Your task to perform on an android device: stop showing notifications on the lock screen Image 0: 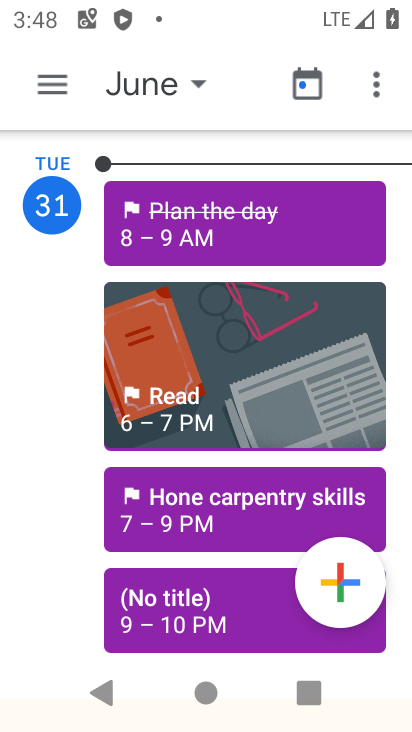
Step 0: press home button
Your task to perform on an android device: stop showing notifications on the lock screen Image 1: 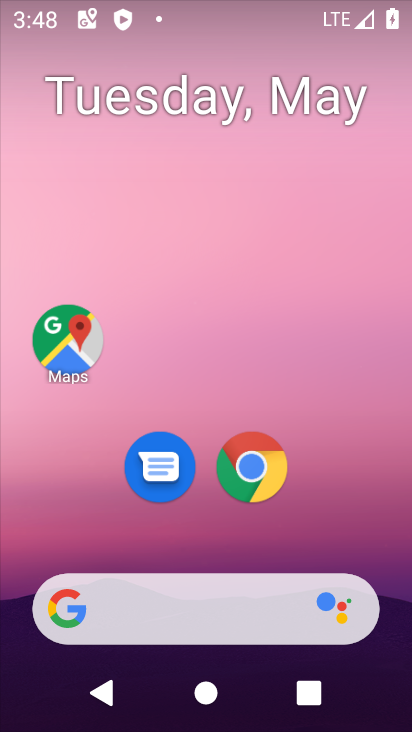
Step 1: drag from (352, 521) to (359, 118)
Your task to perform on an android device: stop showing notifications on the lock screen Image 2: 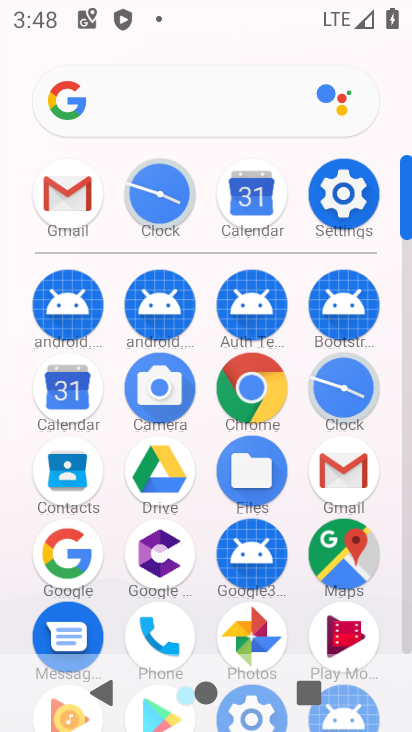
Step 2: click (331, 203)
Your task to perform on an android device: stop showing notifications on the lock screen Image 3: 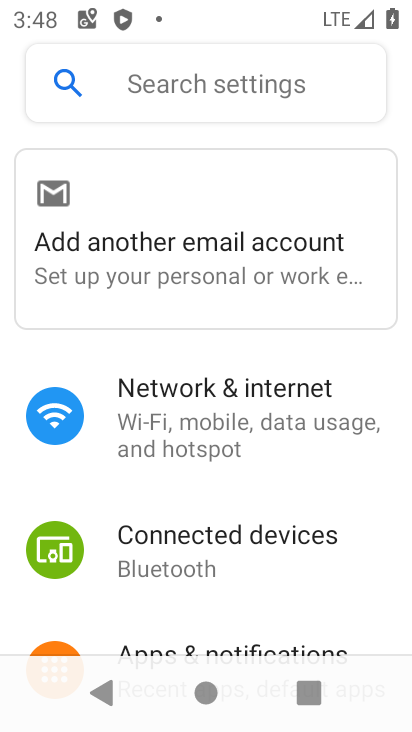
Step 3: click (248, 647)
Your task to perform on an android device: stop showing notifications on the lock screen Image 4: 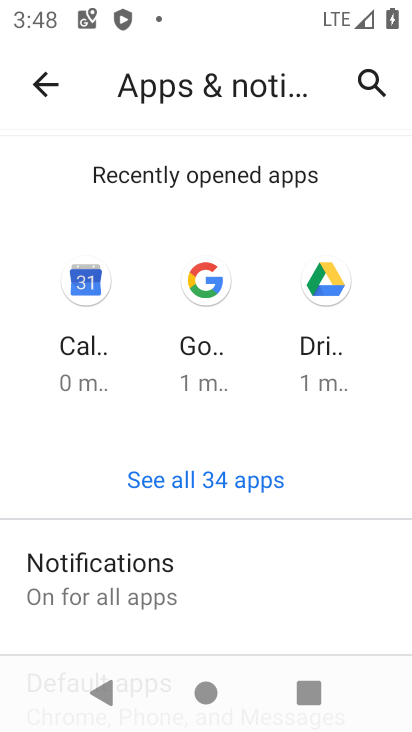
Step 4: drag from (344, 497) to (343, 202)
Your task to perform on an android device: stop showing notifications on the lock screen Image 5: 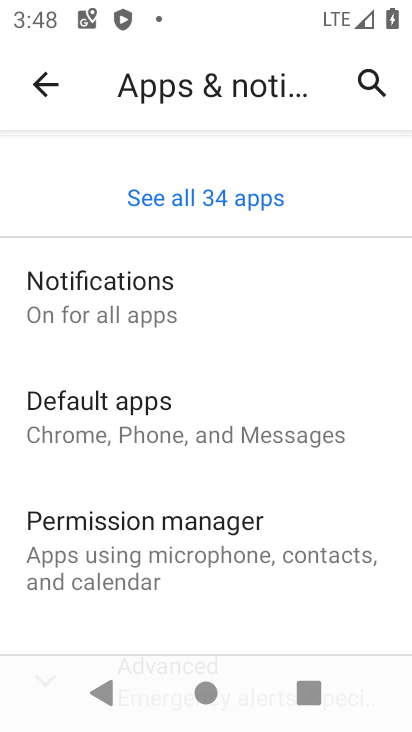
Step 5: drag from (377, 623) to (359, 236)
Your task to perform on an android device: stop showing notifications on the lock screen Image 6: 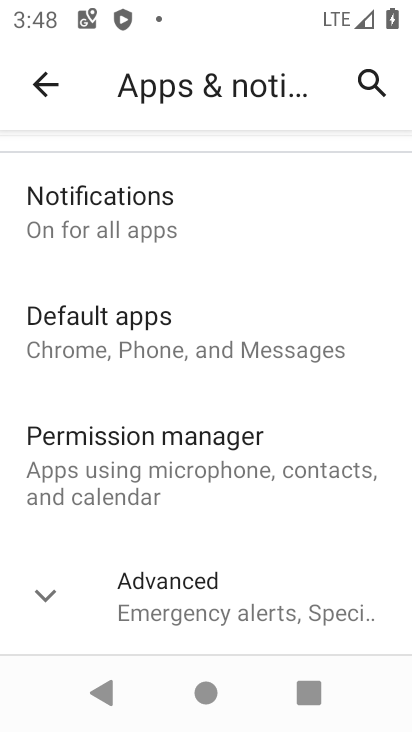
Step 6: click (152, 184)
Your task to perform on an android device: stop showing notifications on the lock screen Image 7: 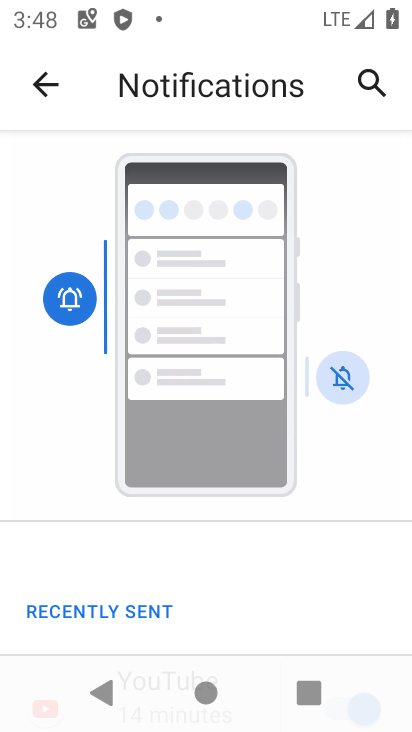
Step 7: drag from (355, 587) to (316, 134)
Your task to perform on an android device: stop showing notifications on the lock screen Image 8: 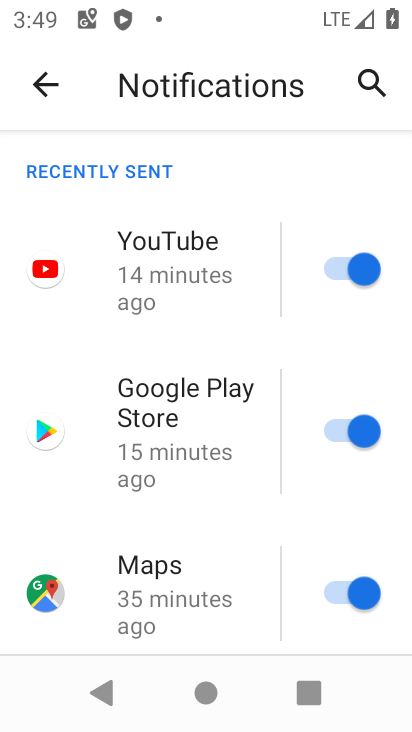
Step 8: drag from (223, 627) to (263, 82)
Your task to perform on an android device: stop showing notifications on the lock screen Image 9: 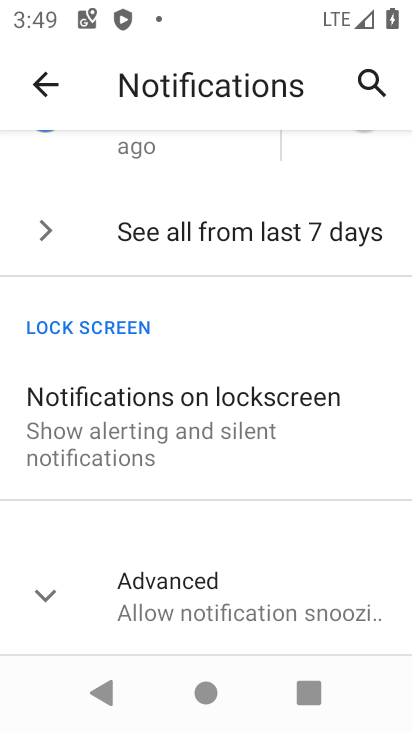
Step 9: click (186, 427)
Your task to perform on an android device: stop showing notifications on the lock screen Image 10: 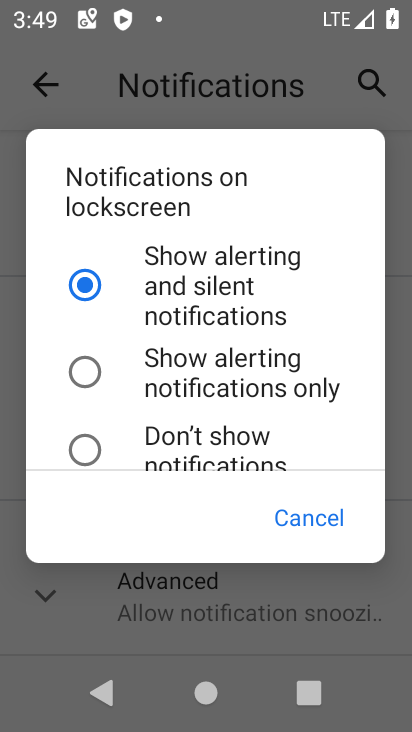
Step 10: click (85, 447)
Your task to perform on an android device: stop showing notifications on the lock screen Image 11: 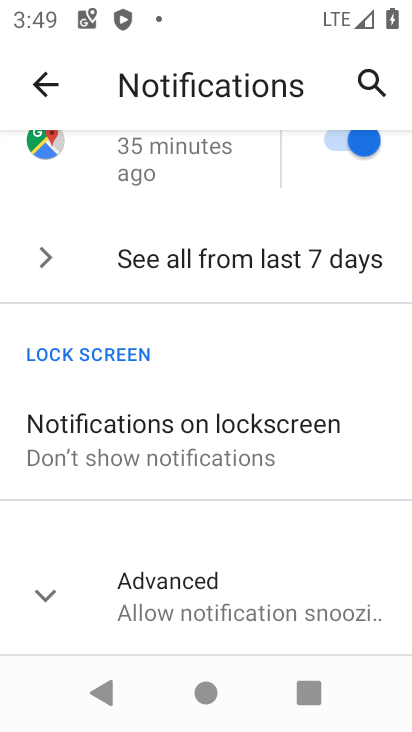
Step 11: task complete